Your task to perform on an android device: Open Youtube and go to "Your channel" Image 0: 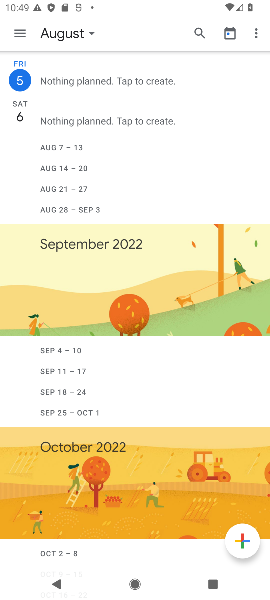
Step 0: press home button
Your task to perform on an android device: Open Youtube and go to "Your channel" Image 1: 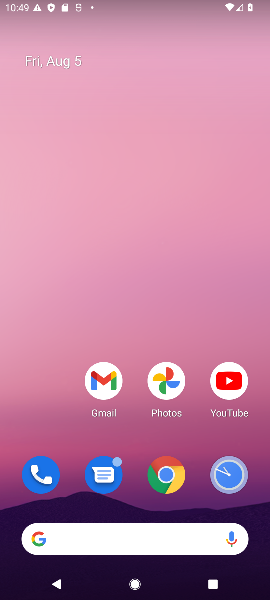
Step 1: drag from (136, 509) to (140, 96)
Your task to perform on an android device: Open Youtube and go to "Your channel" Image 2: 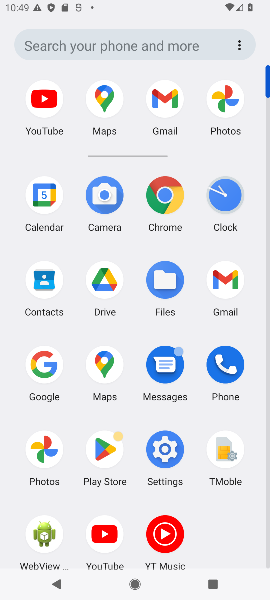
Step 2: click (111, 537)
Your task to perform on an android device: Open Youtube and go to "Your channel" Image 3: 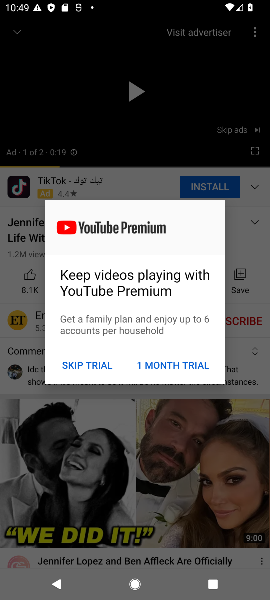
Step 3: click (92, 367)
Your task to perform on an android device: Open Youtube and go to "Your channel" Image 4: 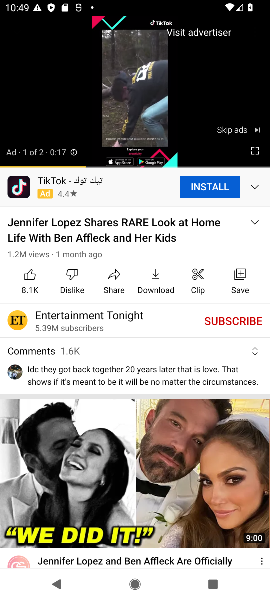
Step 4: press back button
Your task to perform on an android device: Open Youtube and go to "Your channel" Image 5: 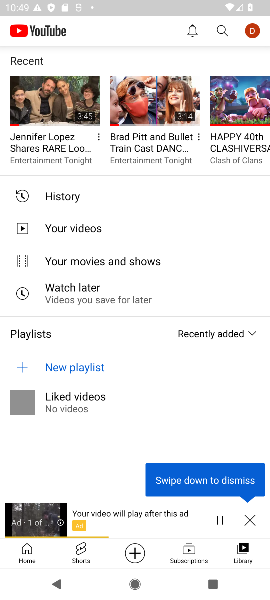
Step 5: click (254, 514)
Your task to perform on an android device: Open Youtube and go to "Your channel" Image 6: 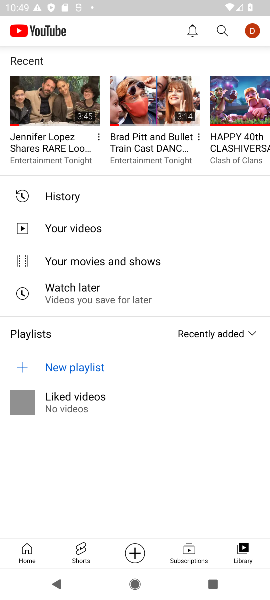
Step 6: click (32, 553)
Your task to perform on an android device: Open Youtube and go to "Your channel" Image 7: 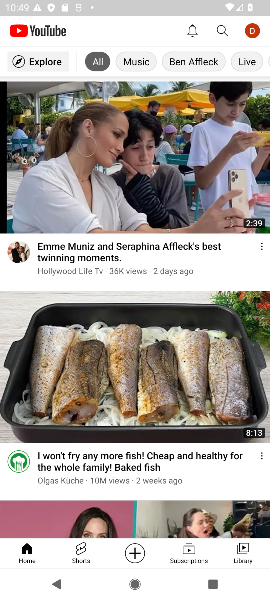
Step 7: click (250, 27)
Your task to perform on an android device: Open Youtube and go to "Your channel" Image 8: 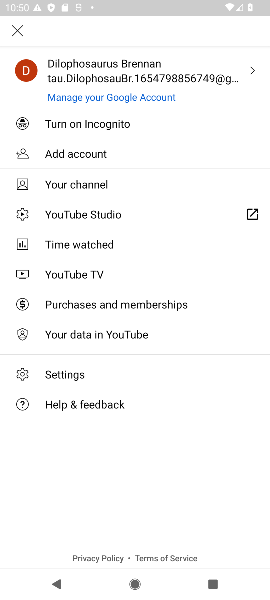
Step 8: click (91, 186)
Your task to perform on an android device: Open Youtube and go to "Your channel" Image 9: 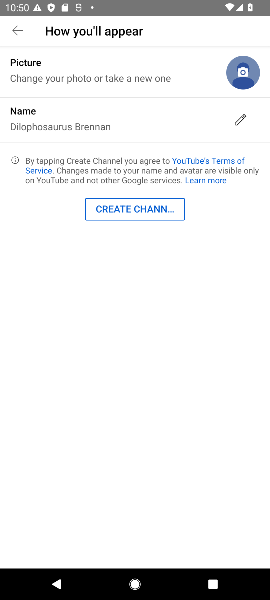
Step 9: task complete